Your task to perform on an android device: change the clock display to digital Image 0: 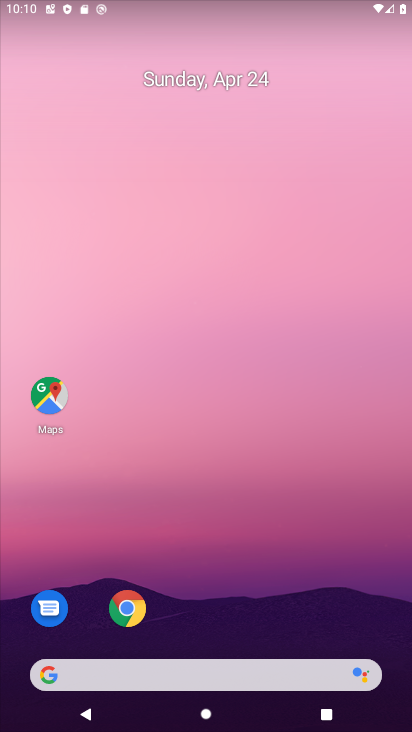
Step 0: drag from (270, 609) to (301, 125)
Your task to perform on an android device: change the clock display to digital Image 1: 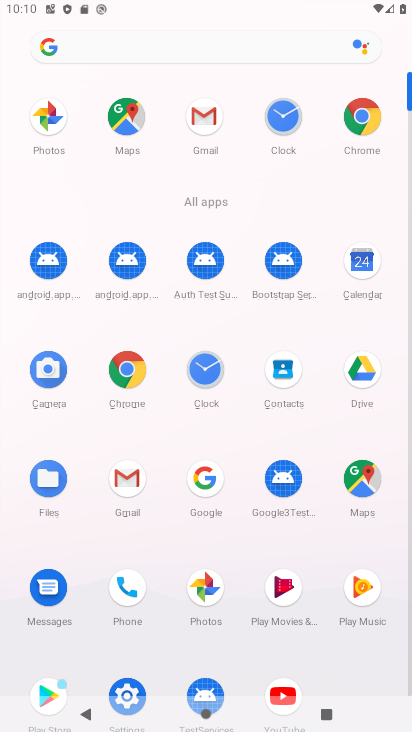
Step 1: click (285, 113)
Your task to perform on an android device: change the clock display to digital Image 2: 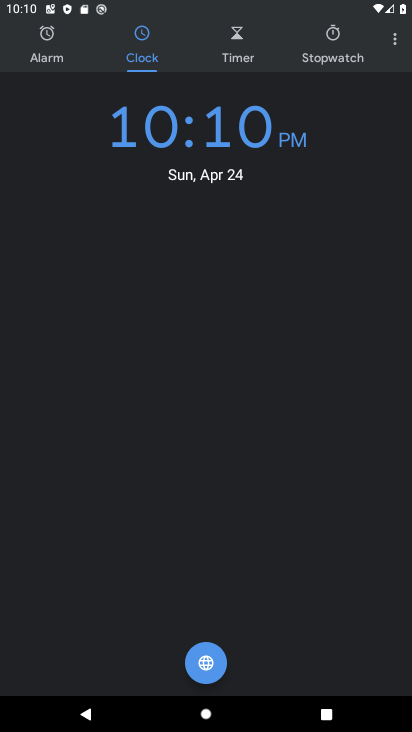
Step 2: click (399, 37)
Your task to perform on an android device: change the clock display to digital Image 3: 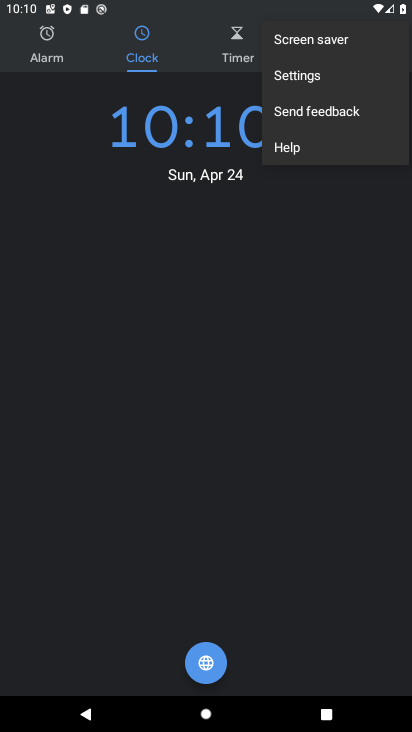
Step 3: click (296, 77)
Your task to perform on an android device: change the clock display to digital Image 4: 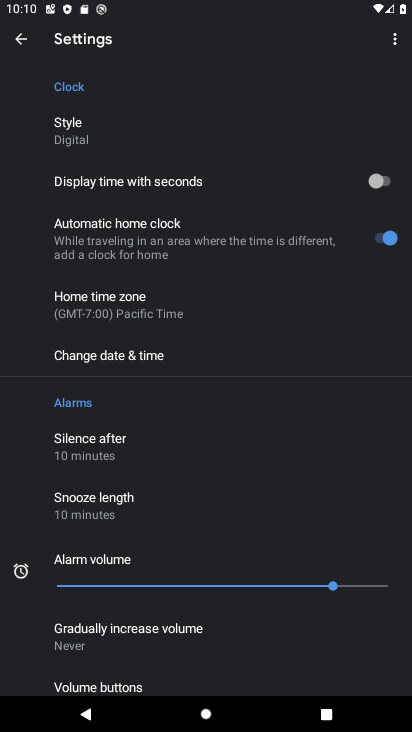
Step 4: click (88, 129)
Your task to perform on an android device: change the clock display to digital Image 5: 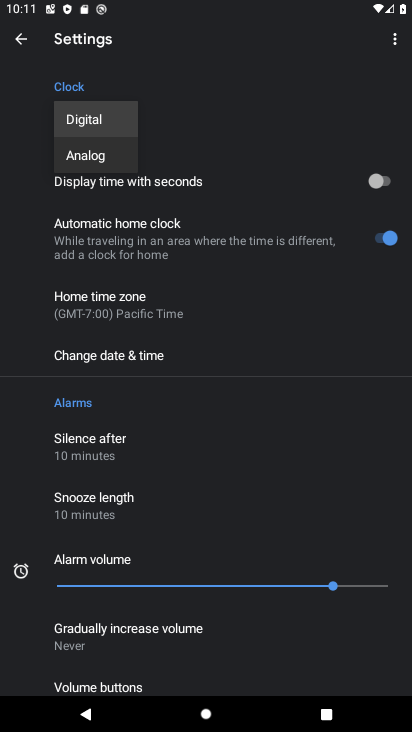
Step 5: task complete